Your task to perform on an android device: Go to Amazon Image 0: 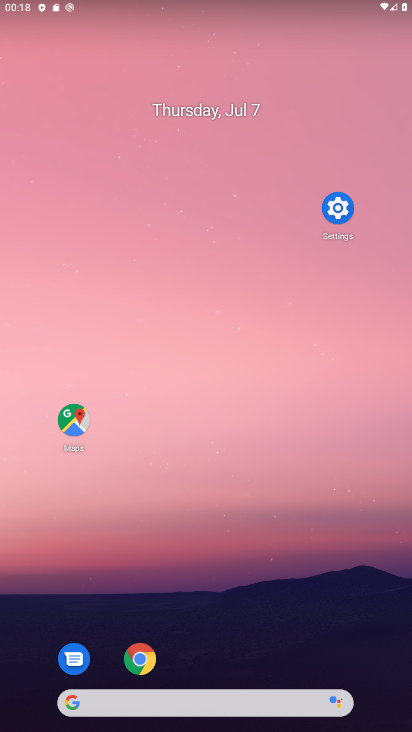
Step 0: drag from (206, 626) to (105, 154)
Your task to perform on an android device: Go to Amazon Image 1: 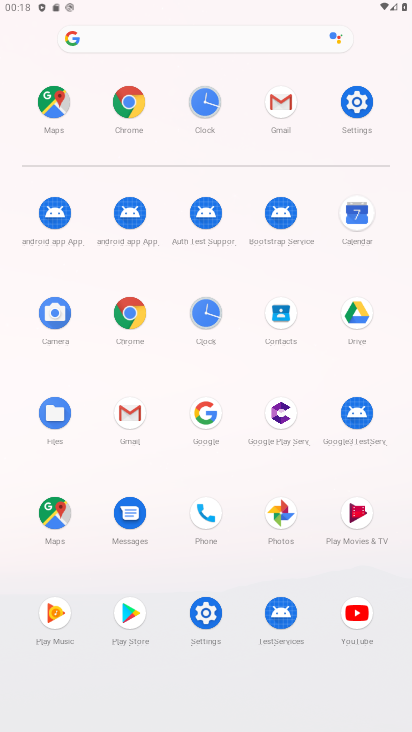
Step 1: click (124, 324)
Your task to perform on an android device: Go to Amazon Image 2: 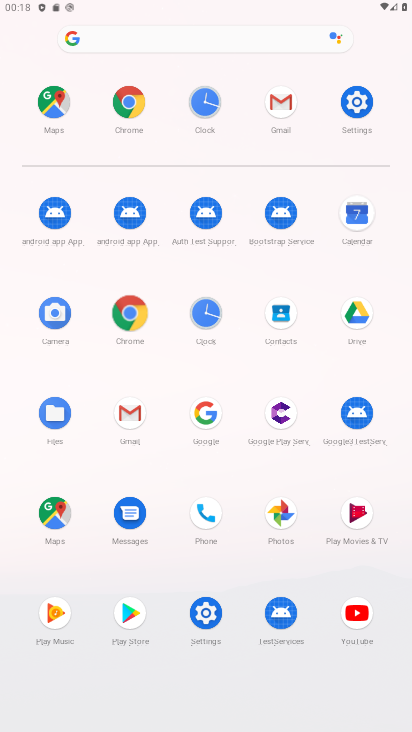
Step 2: click (129, 319)
Your task to perform on an android device: Go to Amazon Image 3: 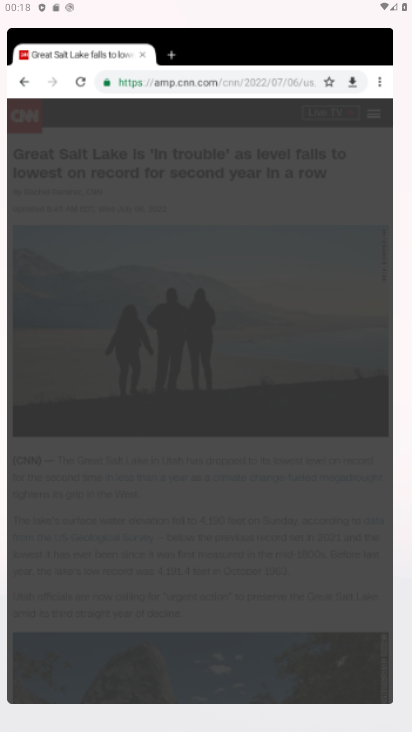
Step 3: click (130, 318)
Your task to perform on an android device: Go to Amazon Image 4: 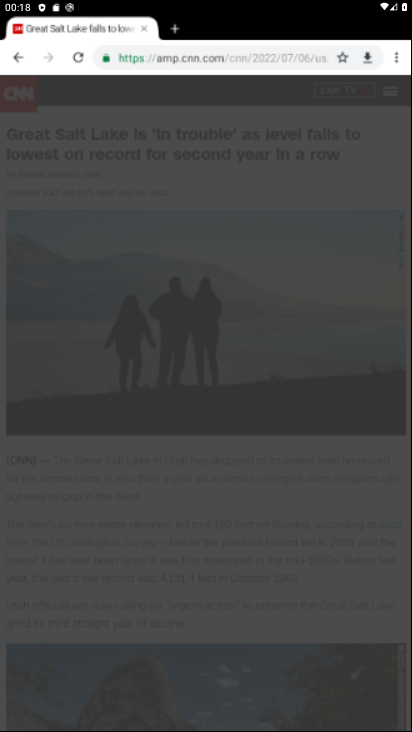
Step 4: click (131, 318)
Your task to perform on an android device: Go to Amazon Image 5: 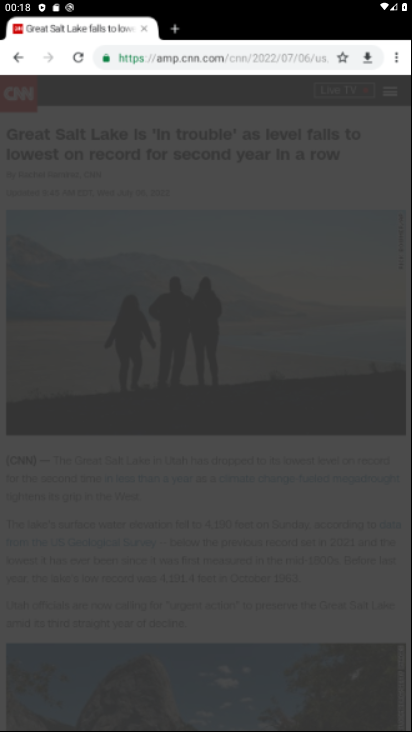
Step 5: click (131, 317)
Your task to perform on an android device: Go to Amazon Image 6: 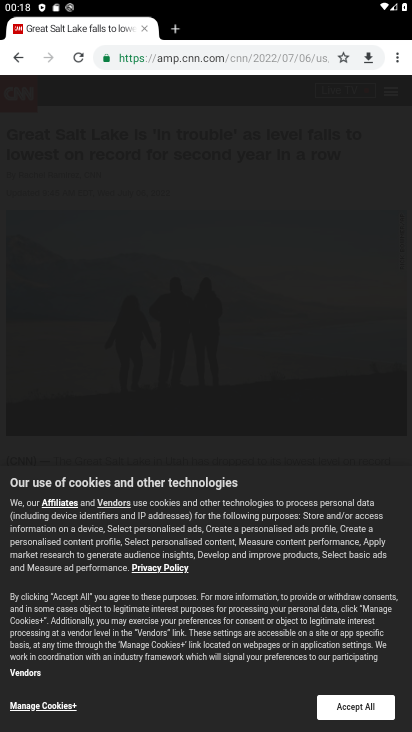
Step 6: press back button
Your task to perform on an android device: Go to Amazon Image 7: 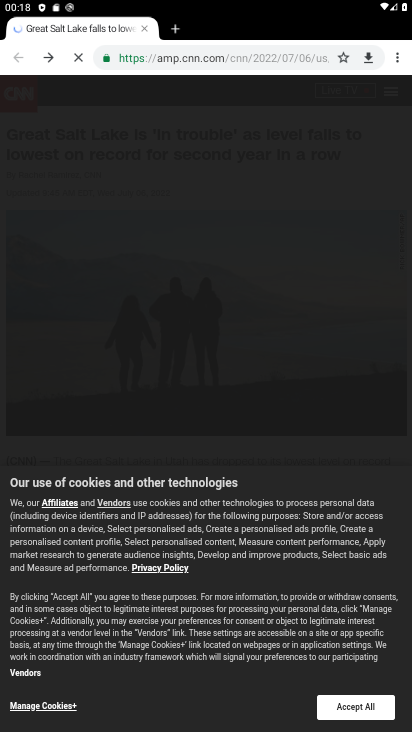
Step 7: press back button
Your task to perform on an android device: Go to Amazon Image 8: 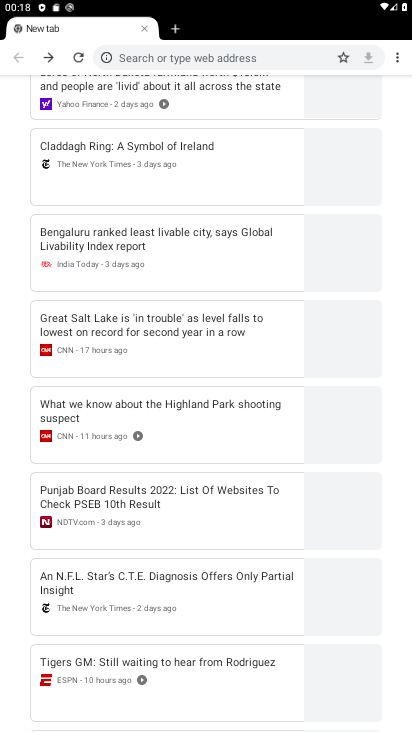
Step 8: press back button
Your task to perform on an android device: Go to Amazon Image 9: 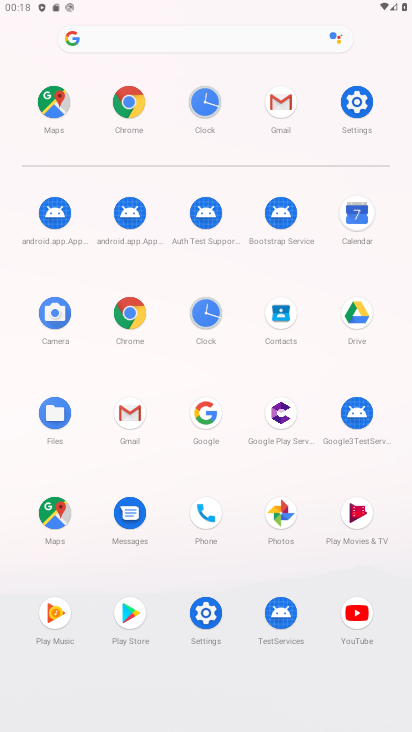
Step 9: press home button
Your task to perform on an android device: Go to Amazon Image 10: 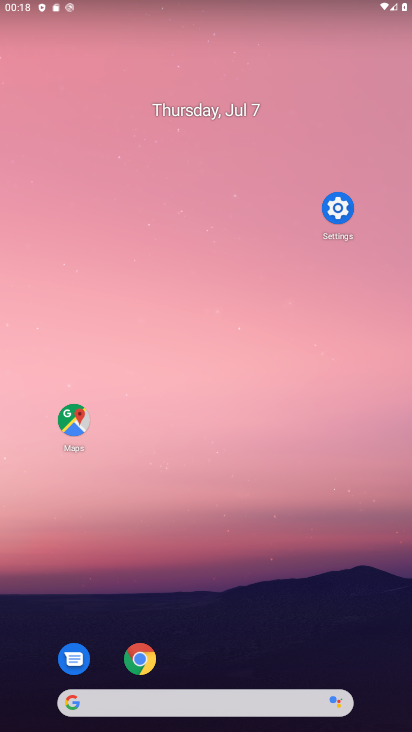
Step 10: drag from (296, 709) to (166, 136)
Your task to perform on an android device: Go to Amazon Image 11: 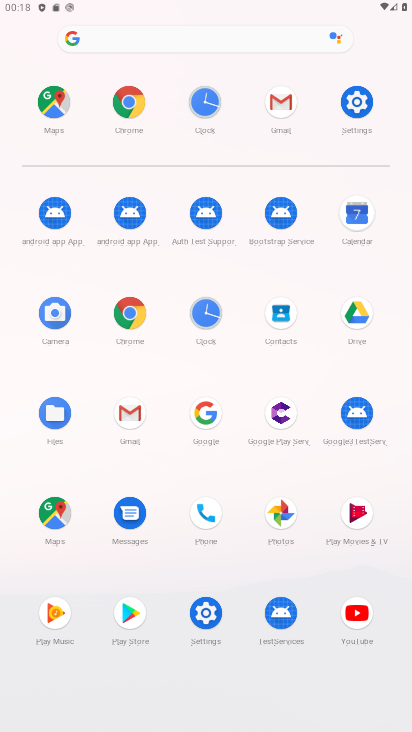
Step 11: click (142, 313)
Your task to perform on an android device: Go to Amazon Image 12: 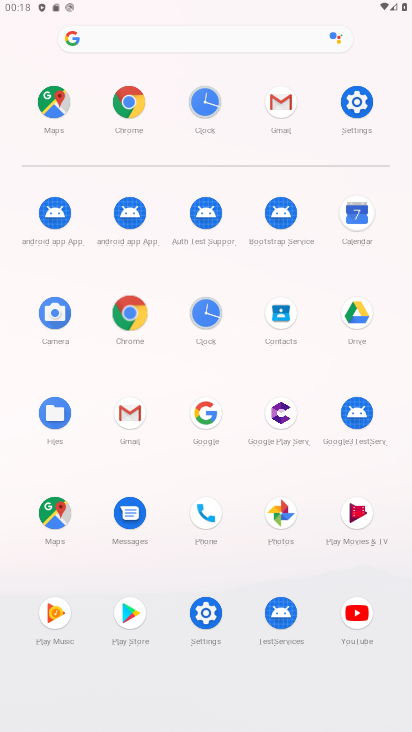
Step 12: click (141, 314)
Your task to perform on an android device: Go to Amazon Image 13: 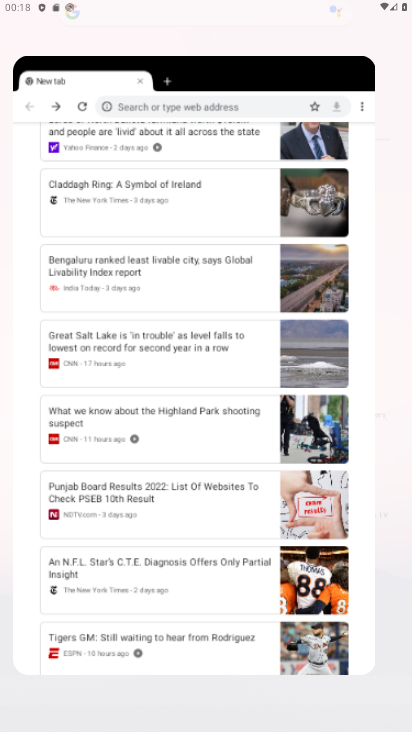
Step 13: click (141, 314)
Your task to perform on an android device: Go to Amazon Image 14: 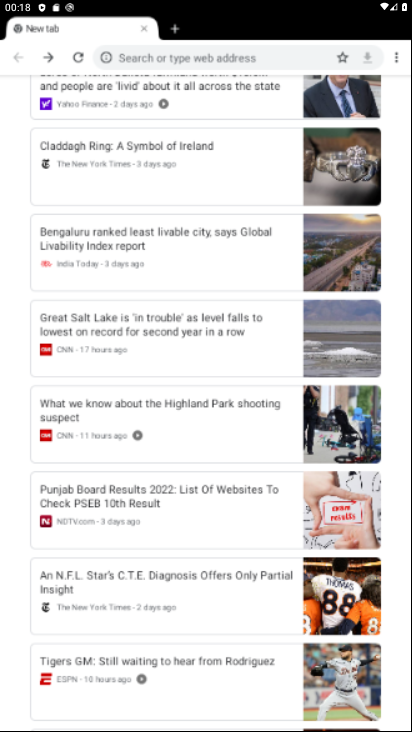
Step 14: click (148, 309)
Your task to perform on an android device: Go to Amazon Image 15: 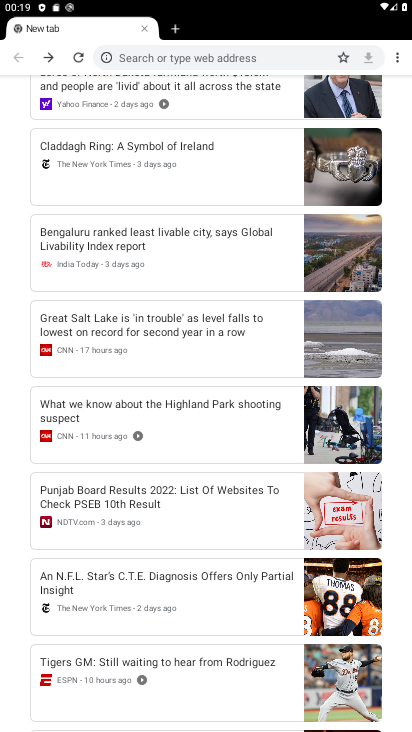
Step 15: drag from (175, 237) to (213, 562)
Your task to perform on an android device: Go to Amazon Image 16: 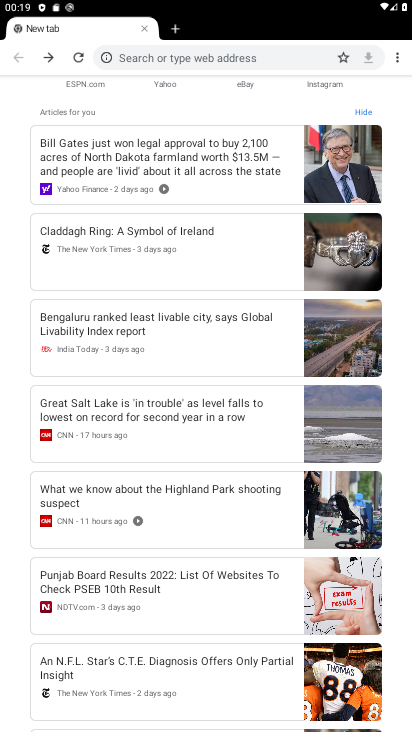
Step 16: drag from (196, 461) to (165, 598)
Your task to perform on an android device: Go to Amazon Image 17: 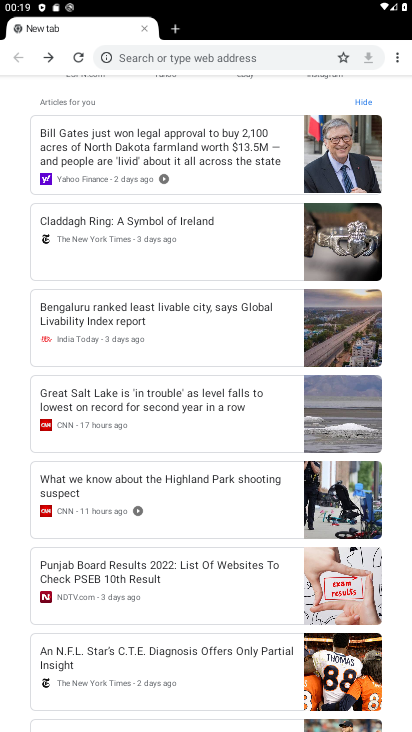
Step 17: drag from (144, 301) to (203, 554)
Your task to perform on an android device: Go to Amazon Image 18: 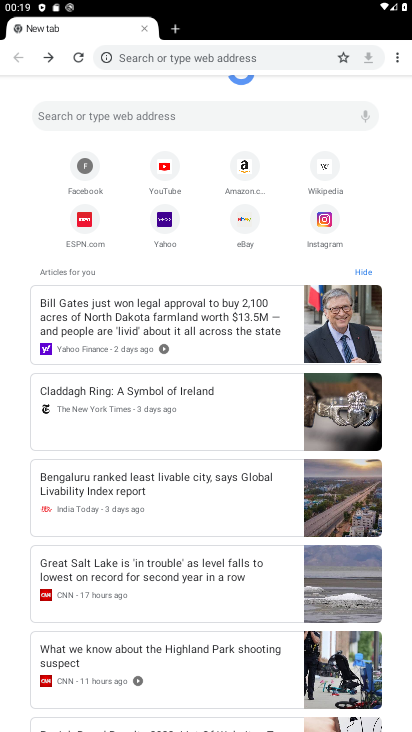
Step 18: drag from (213, 289) to (239, 503)
Your task to perform on an android device: Go to Amazon Image 19: 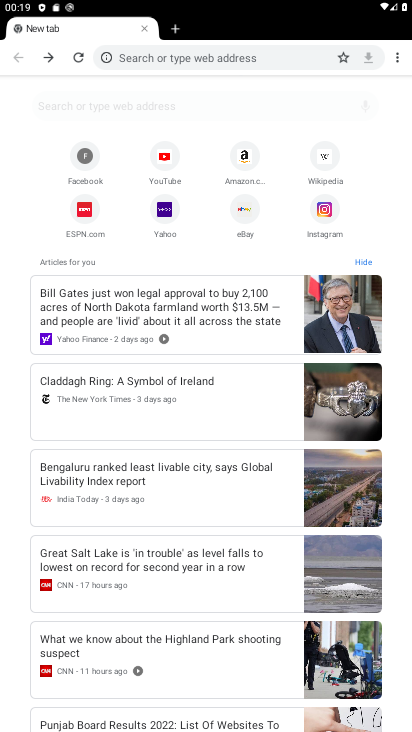
Step 19: click (251, 153)
Your task to perform on an android device: Go to Amazon Image 20: 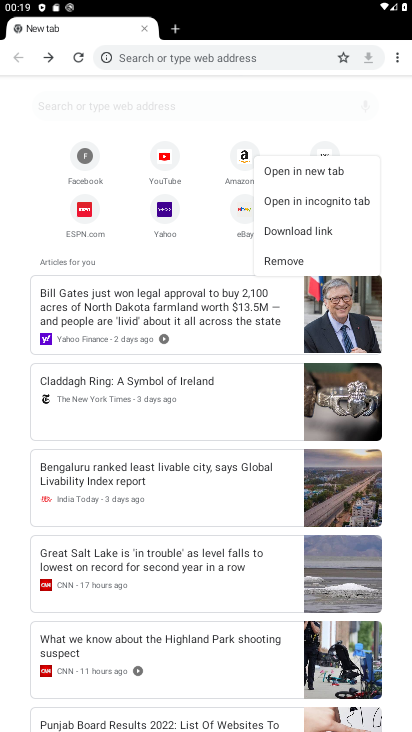
Step 20: click (244, 153)
Your task to perform on an android device: Go to Amazon Image 21: 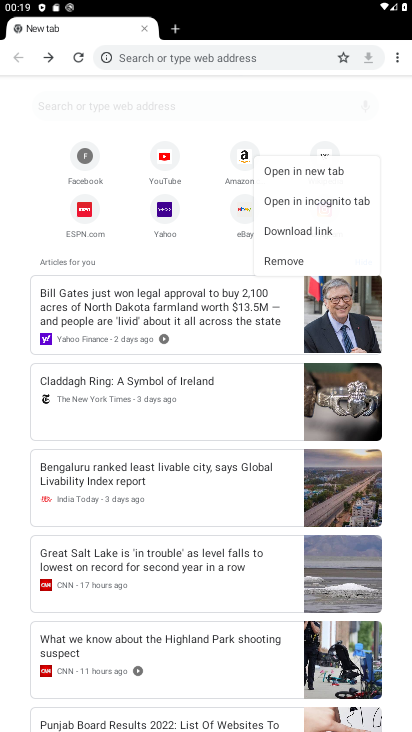
Step 21: click (245, 153)
Your task to perform on an android device: Go to Amazon Image 22: 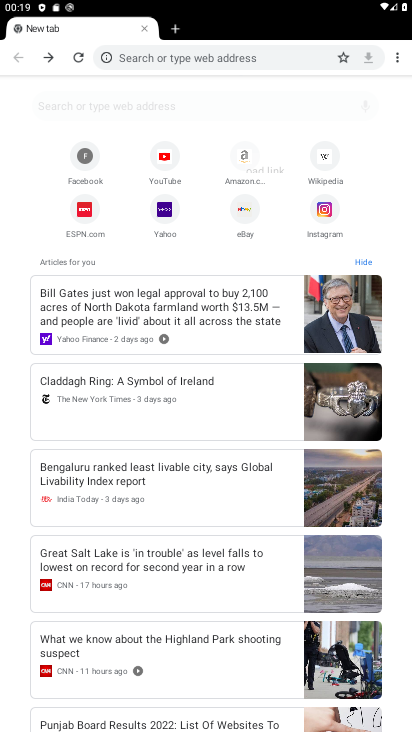
Step 22: click (246, 154)
Your task to perform on an android device: Go to Amazon Image 23: 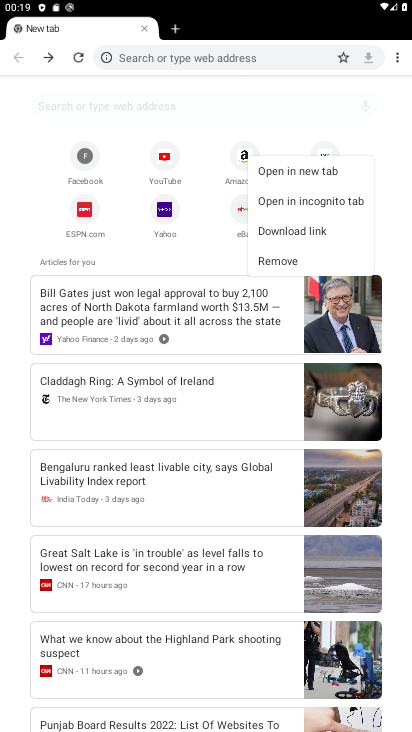
Step 23: click (247, 158)
Your task to perform on an android device: Go to Amazon Image 24: 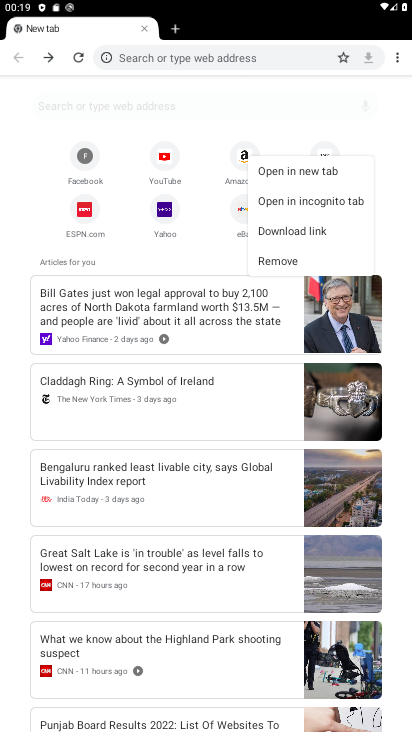
Step 24: task complete